Your task to perform on an android device: Open the phone app and click the voicemail tab. Image 0: 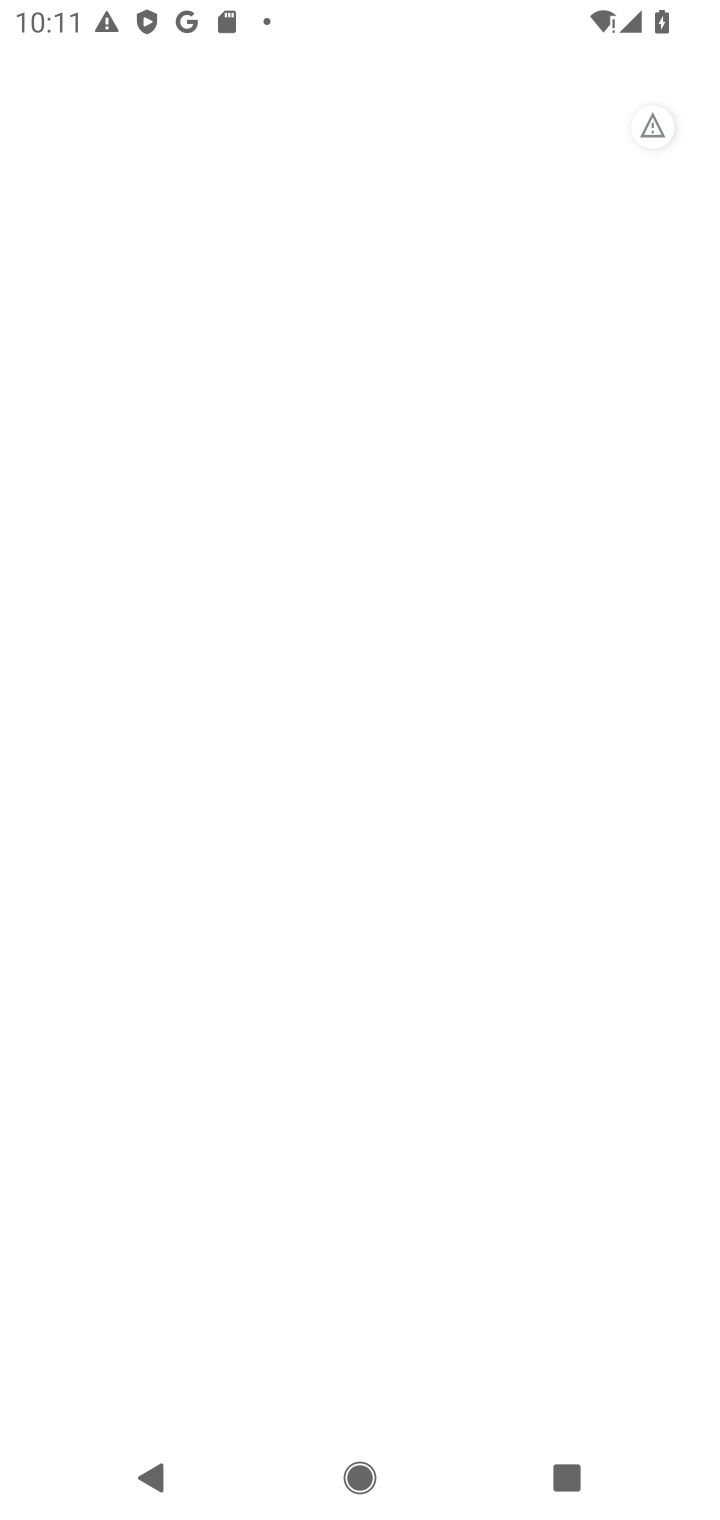
Step 0: press home button
Your task to perform on an android device: Open the phone app and click the voicemail tab. Image 1: 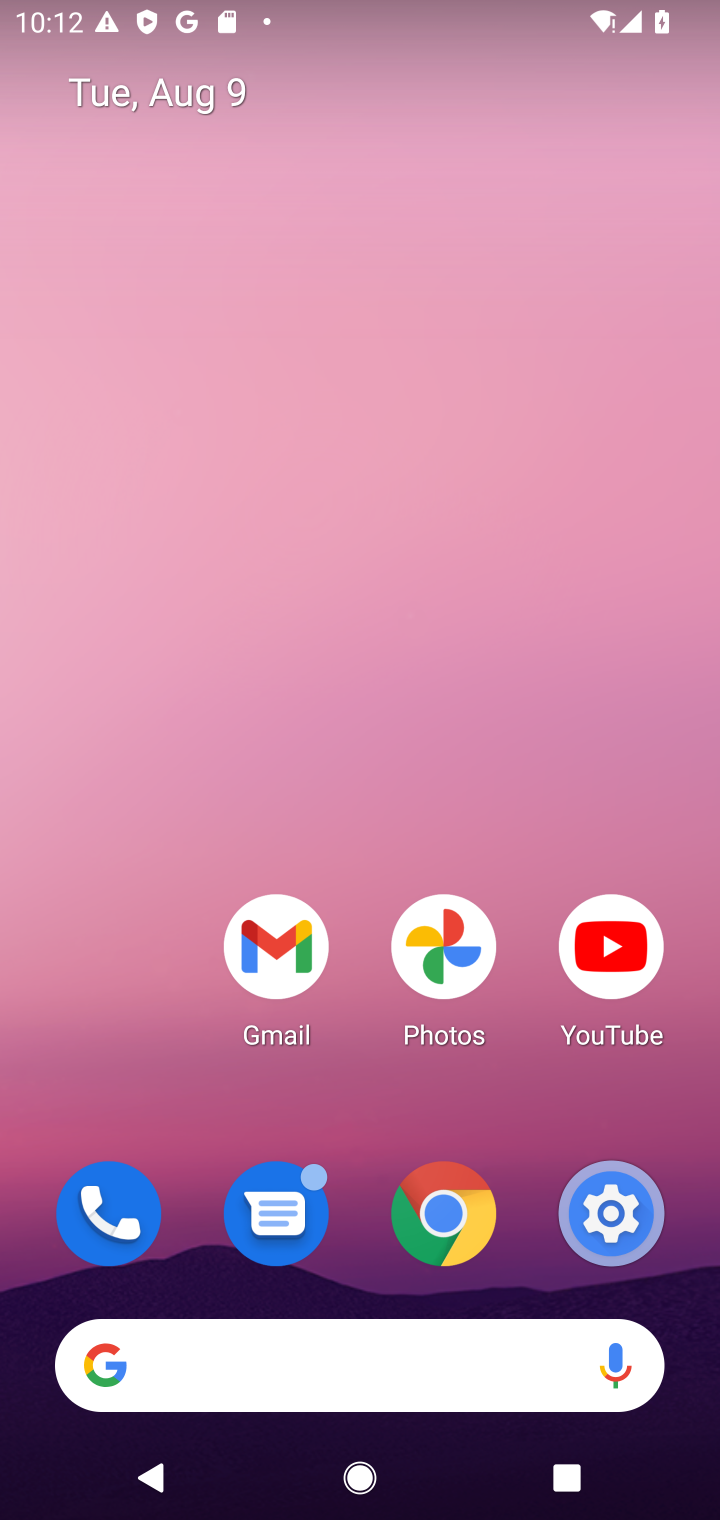
Step 1: click (47, 1190)
Your task to perform on an android device: Open the phone app and click the voicemail tab. Image 2: 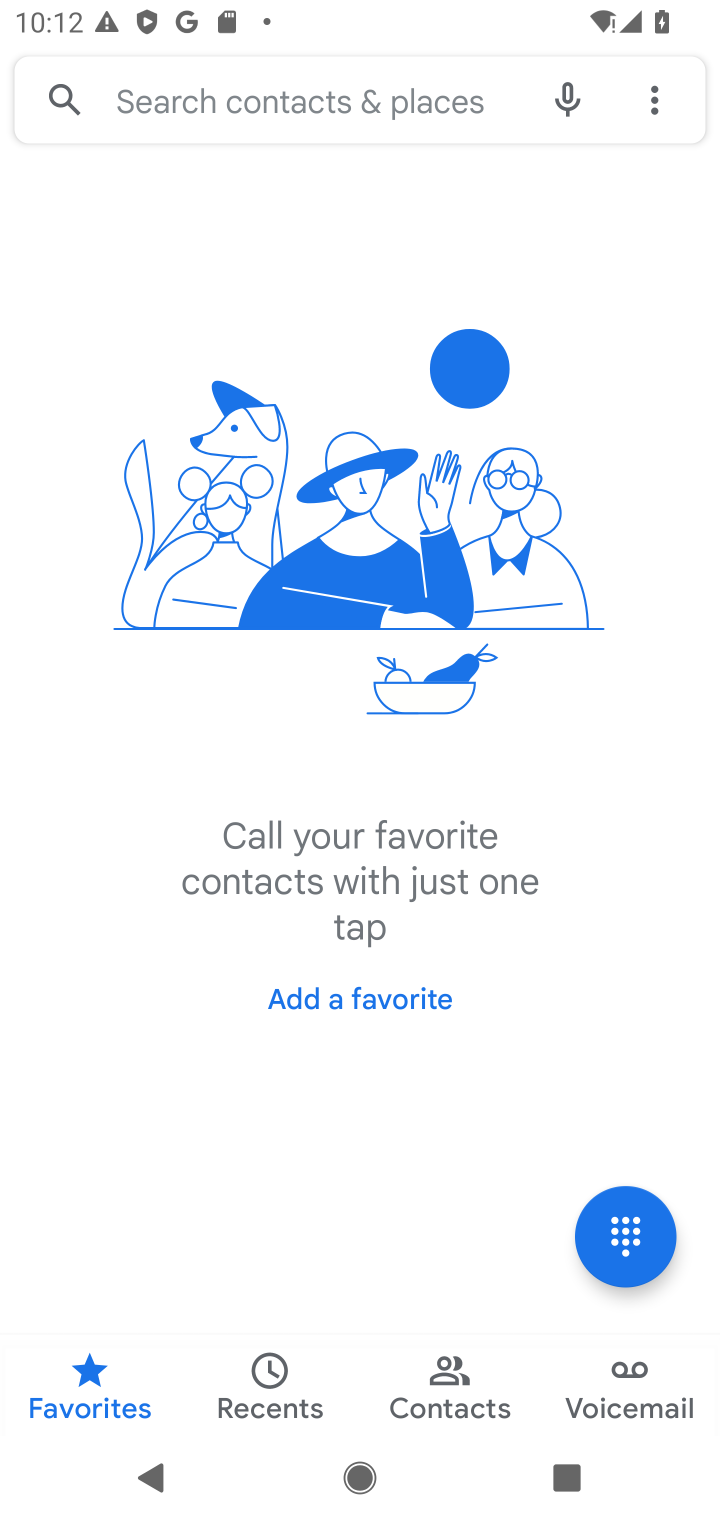
Step 2: click (608, 1362)
Your task to perform on an android device: Open the phone app and click the voicemail tab. Image 3: 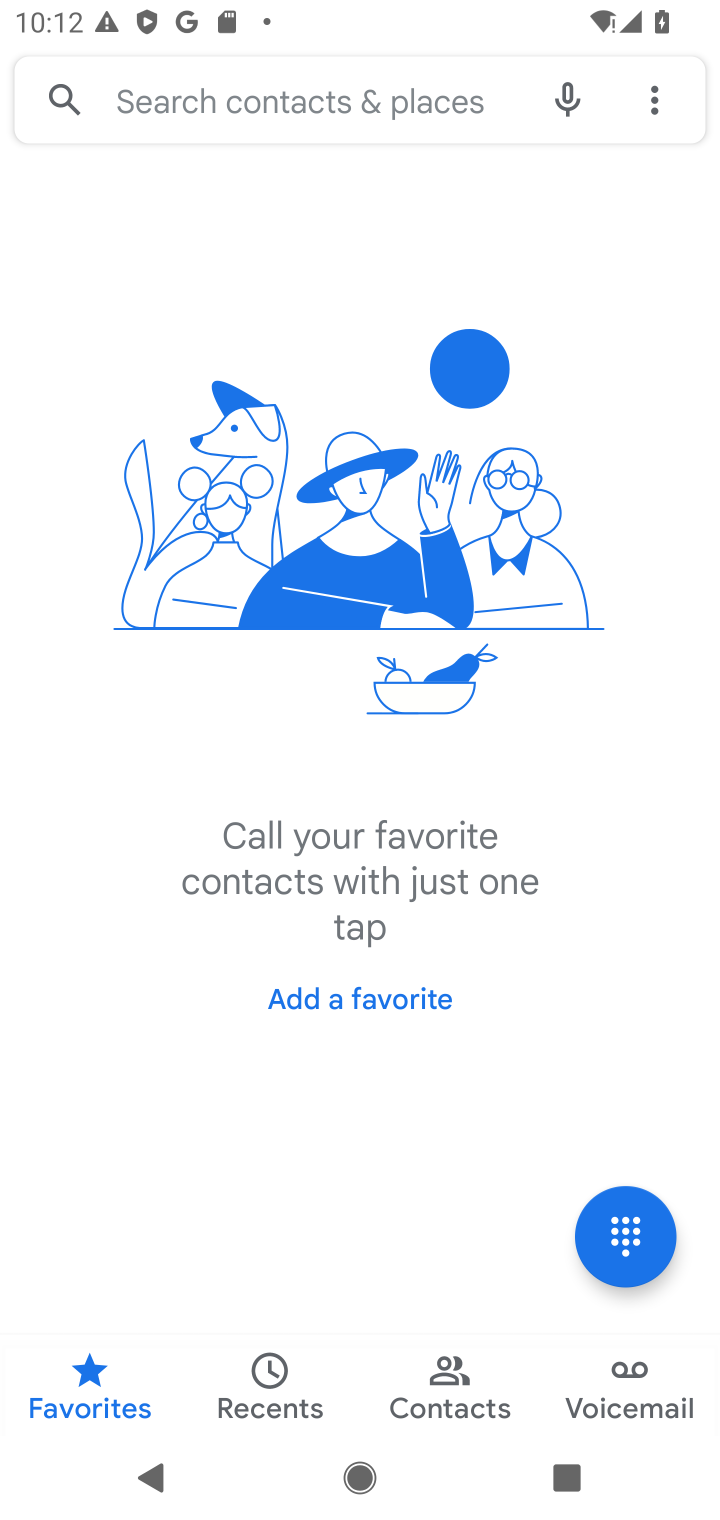
Step 3: click (605, 1369)
Your task to perform on an android device: Open the phone app and click the voicemail tab. Image 4: 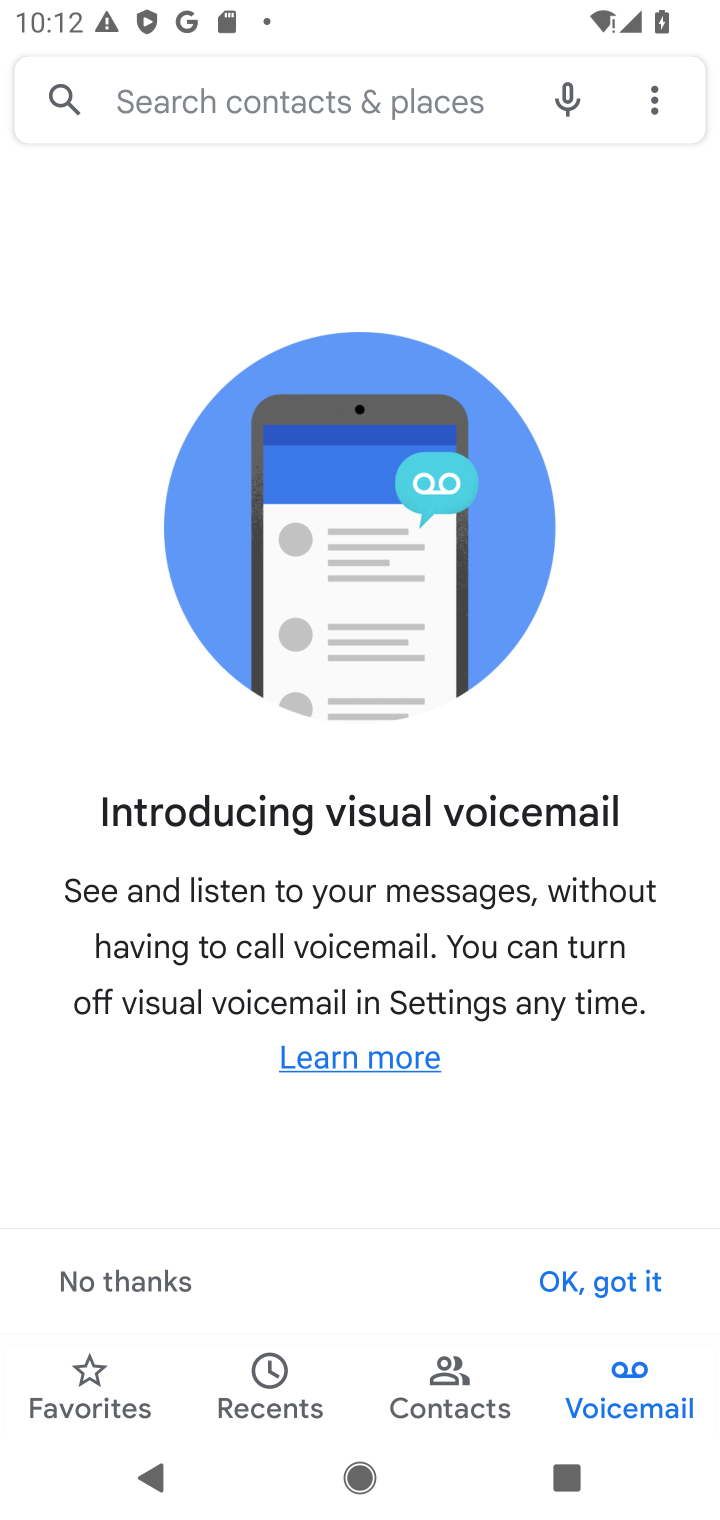
Step 4: task complete